Your task to perform on an android device: turn on improve location accuracy Image 0: 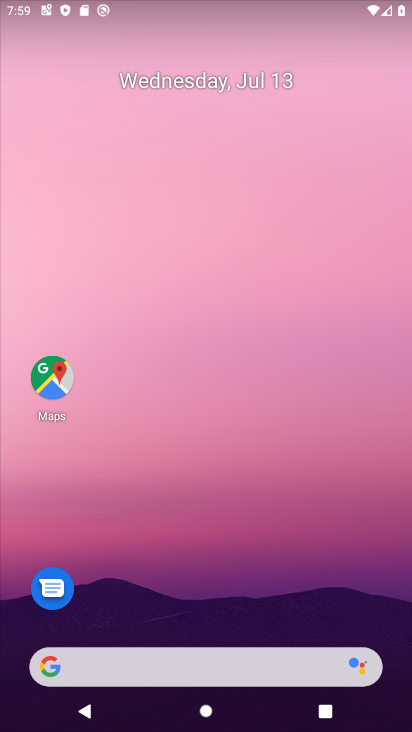
Step 0: drag from (276, 525) to (30, 122)
Your task to perform on an android device: turn on improve location accuracy Image 1: 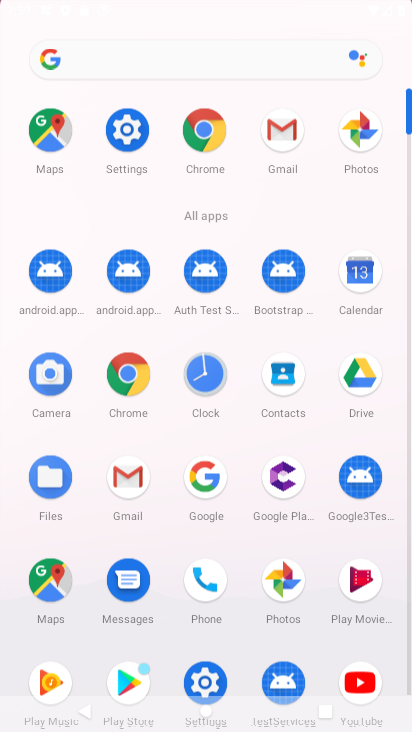
Step 1: drag from (229, 187) to (334, 21)
Your task to perform on an android device: turn on improve location accuracy Image 2: 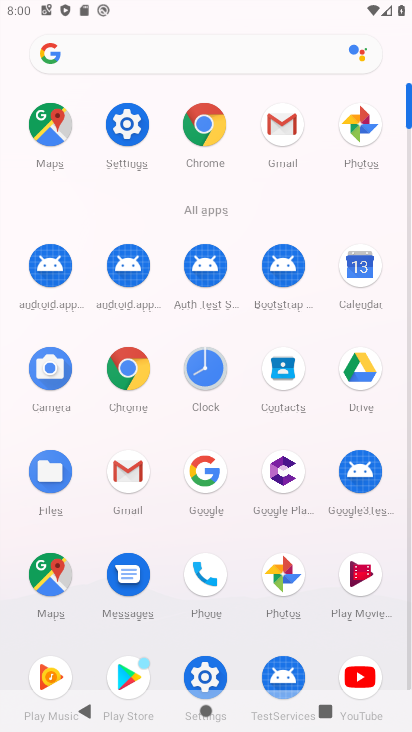
Step 2: click (122, 131)
Your task to perform on an android device: turn on improve location accuracy Image 3: 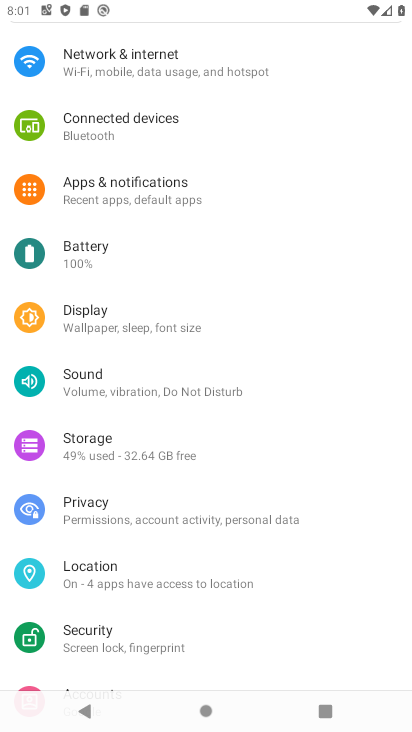
Step 3: click (123, 568)
Your task to perform on an android device: turn on improve location accuracy Image 4: 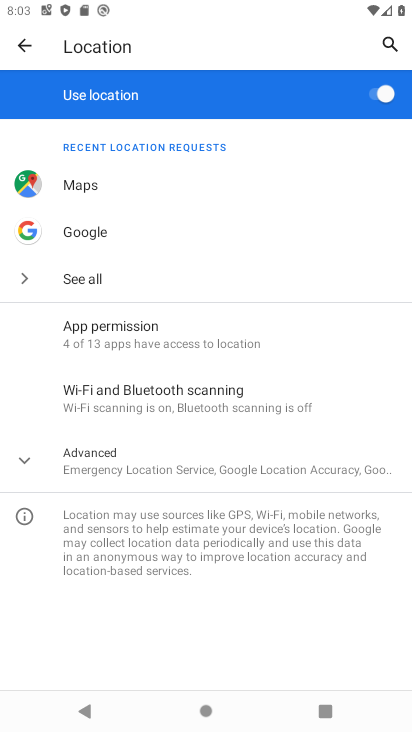
Step 4: click (240, 469)
Your task to perform on an android device: turn on improve location accuracy Image 5: 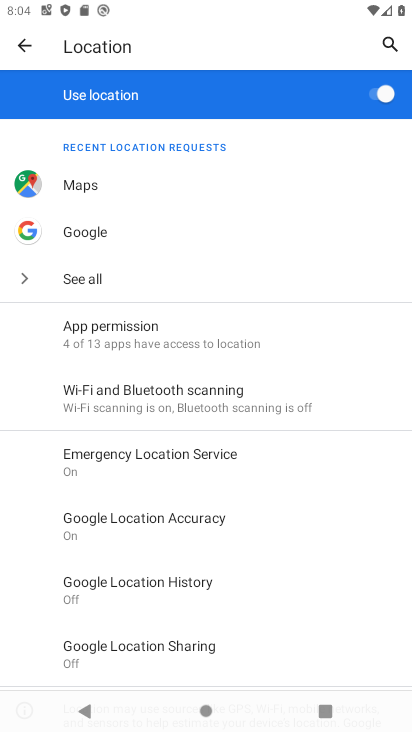
Step 5: click (206, 516)
Your task to perform on an android device: turn on improve location accuracy Image 6: 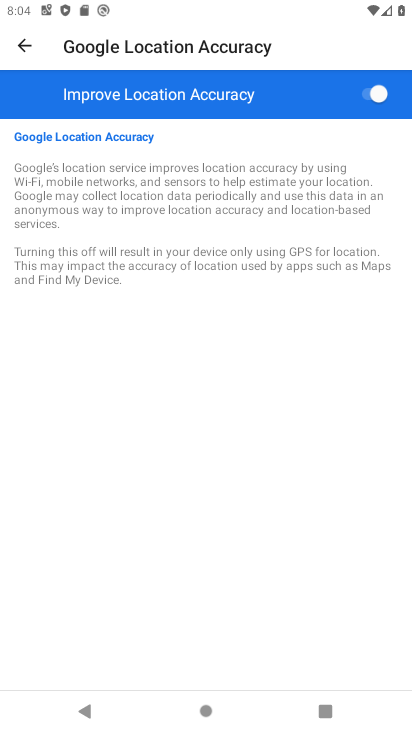
Step 6: task complete